Your task to perform on an android device: set an alarm Image 0: 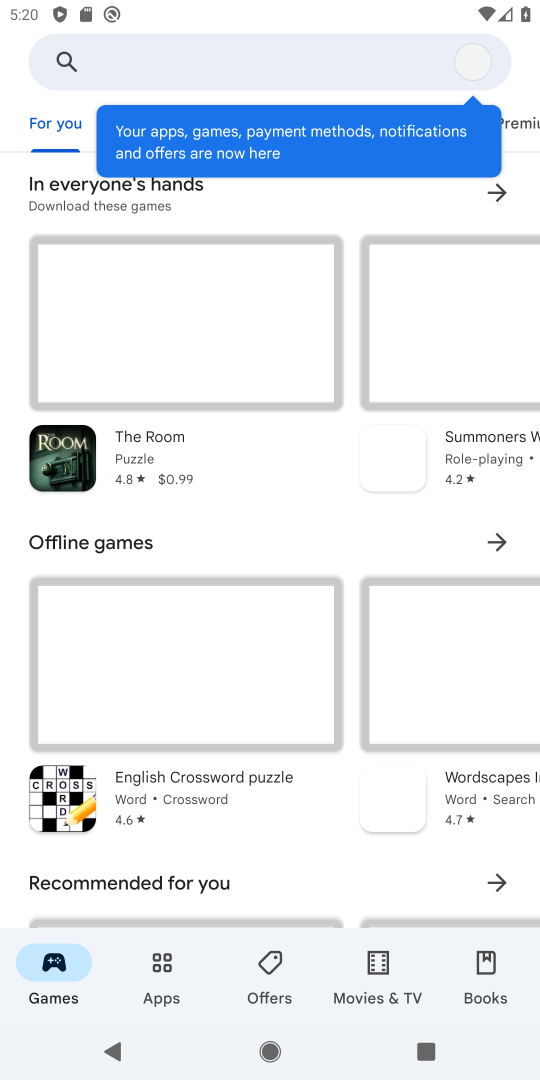
Step 0: press home button
Your task to perform on an android device: set an alarm Image 1: 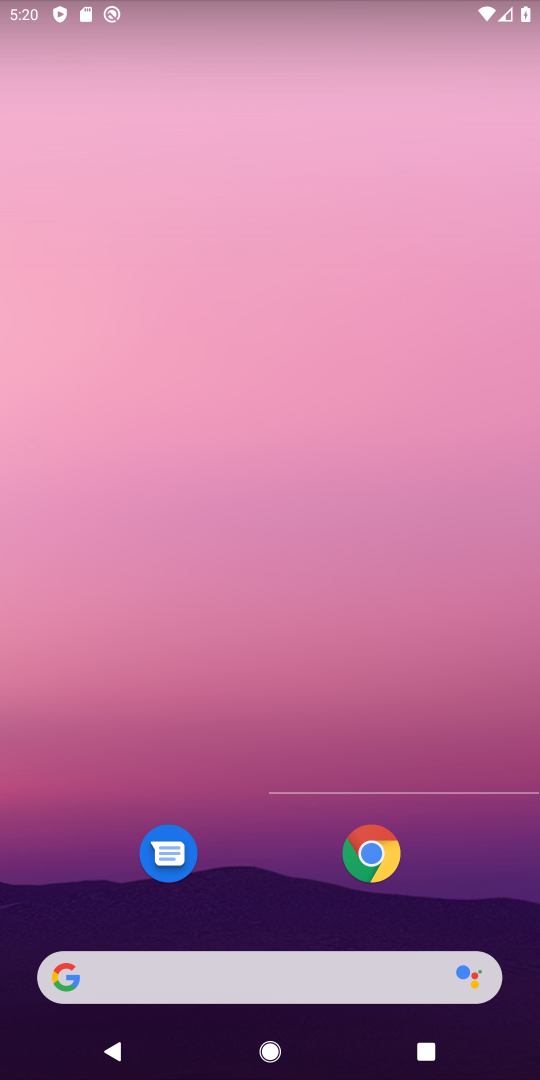
Step 1: drag from (507, 872) to (462, 421)
Your task to perform on an android device: set an alarm Image 2: 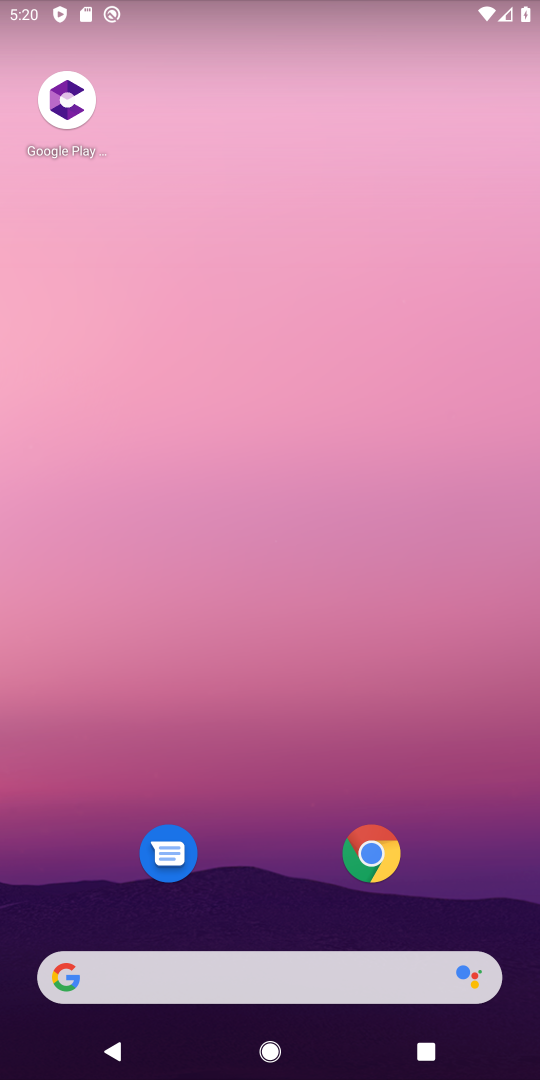
Step 2: drag from (294, 877) to (263, 332)
Your task to perform on an android device: set an alarm Image 3: 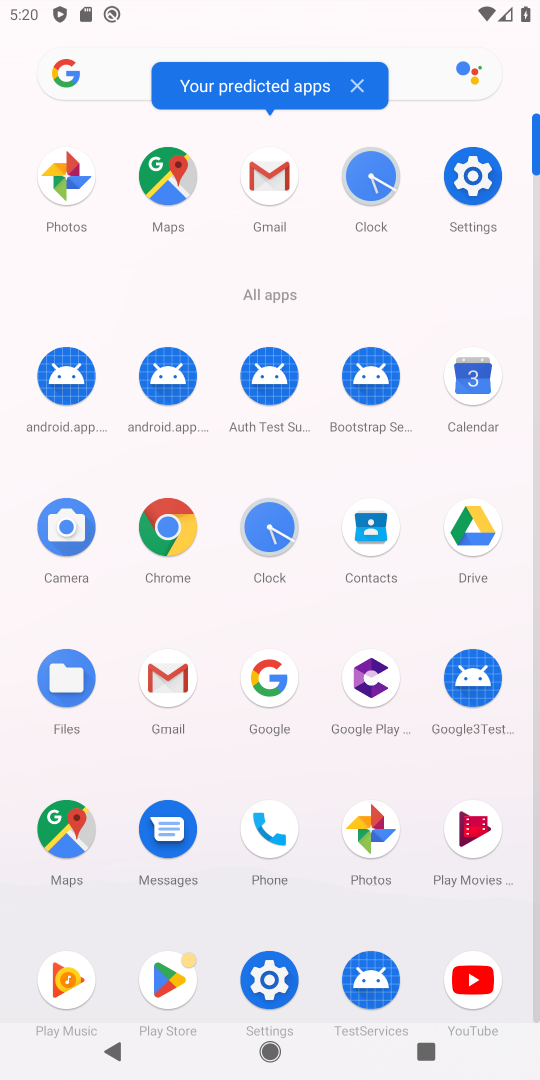
Step 3: click (375, 193)
Your task to perform on an android device: set an alarm Image 4: 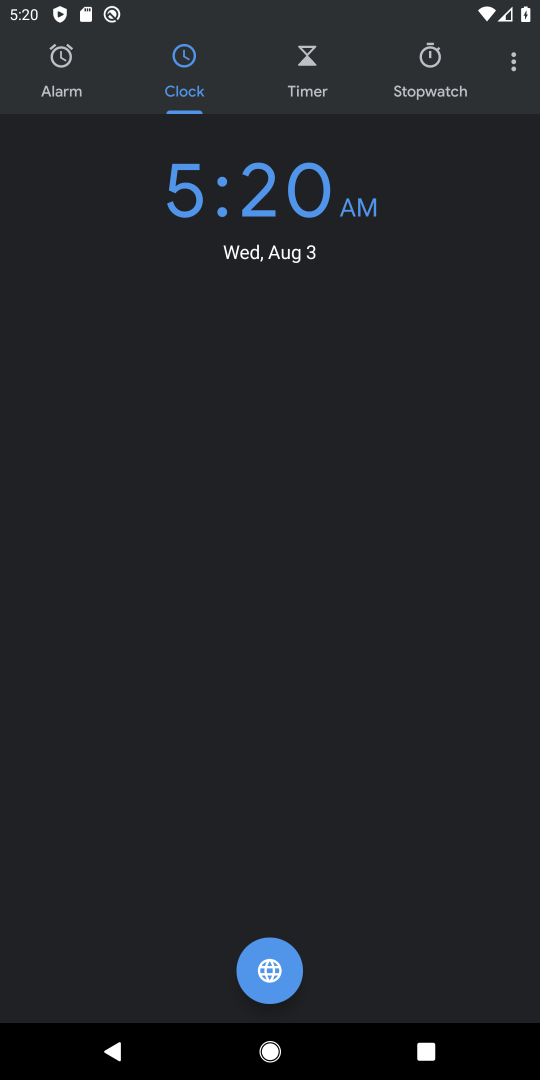
Step 4: click (61, 45)
Your task to perform on an android device: set an alarm Image 5: 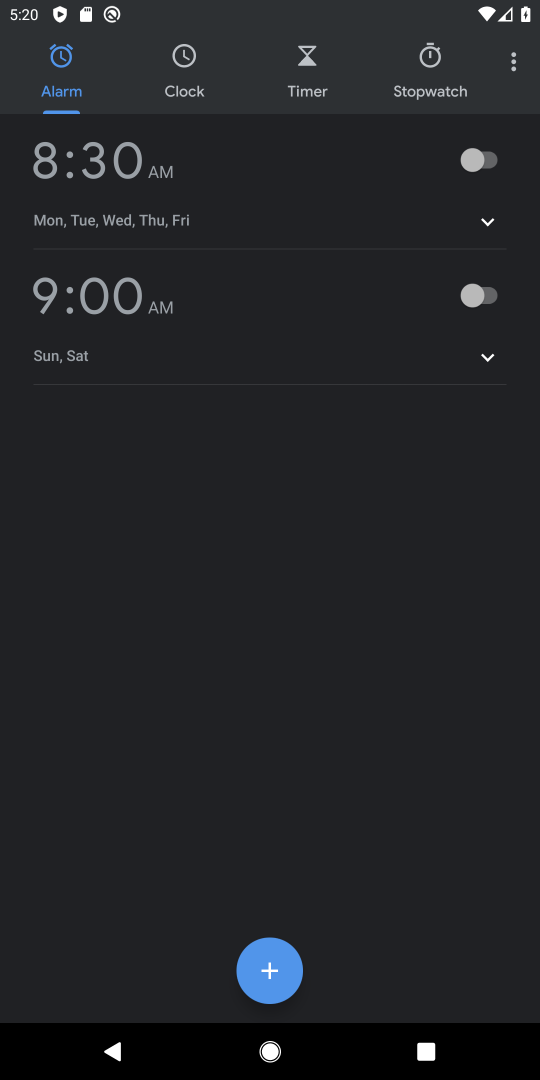
Step 5: click (491, 167)
Your task to perform on an android device: set an alarm Image 6: 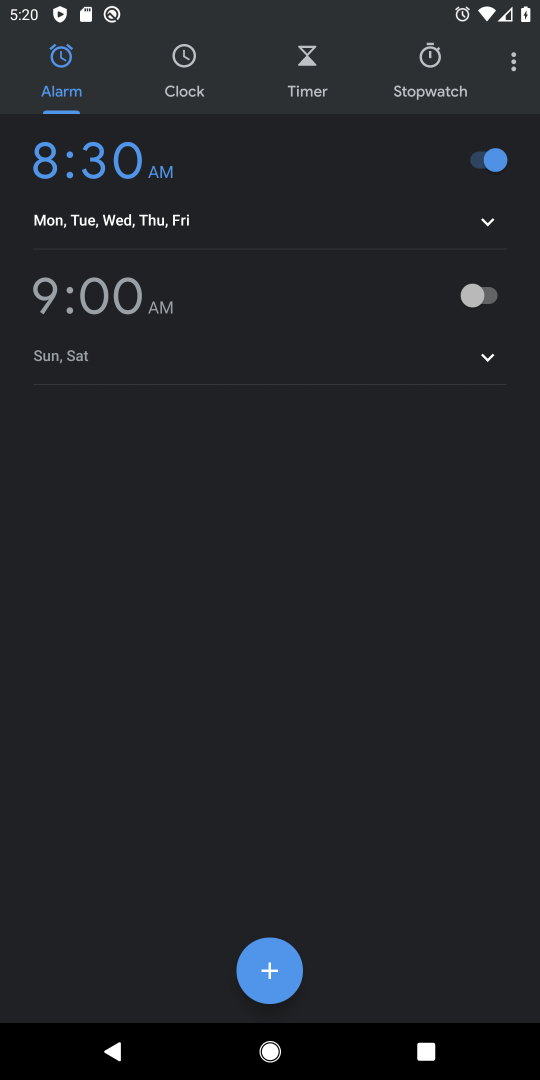
Step 6: task complete